Your task to perform on an android device: toggle notification dots Image 0: 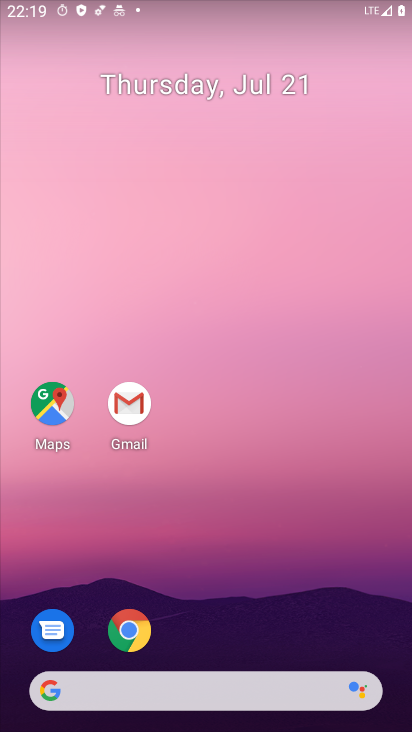
Step 0: drag from (228, 630) to (195, 69)
Your task to perform on an android device: toggle notification dots Image 1: 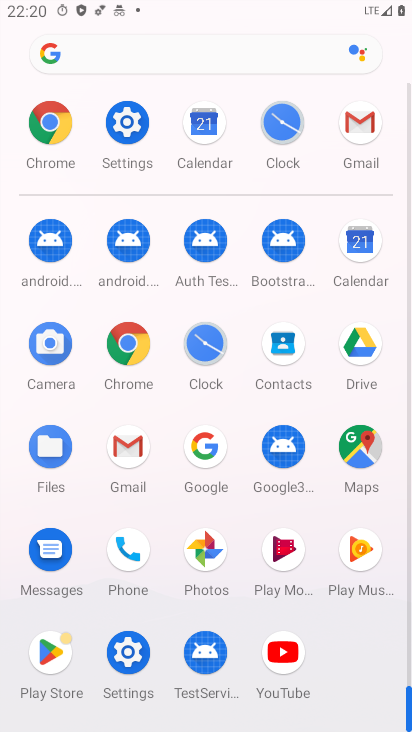
Step 1: click (127, 135)
Your task to perform on an android device: toggle notification dots Image 2: 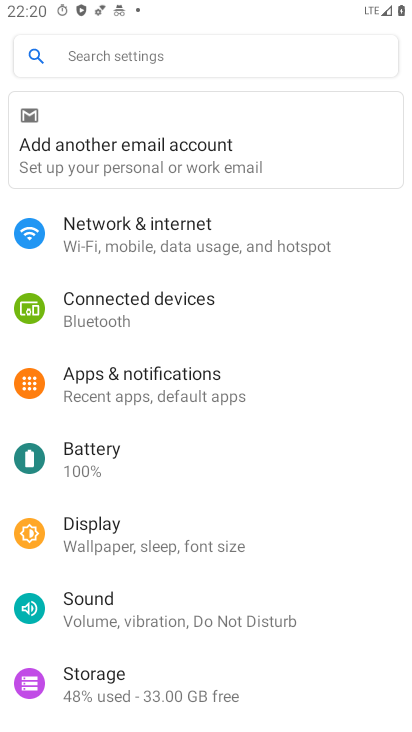
Step 2: drag from (172, 607) to (134, 165)
Your task to perform on an android device: toggle notification dots Image 3: 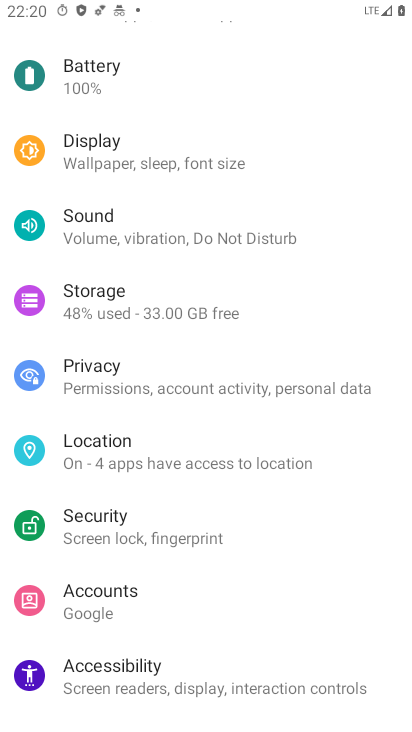
Step 3: drag from (155, 462) to (166, 124)
Your task to perform on an android device: toggle notification dots Image 4: 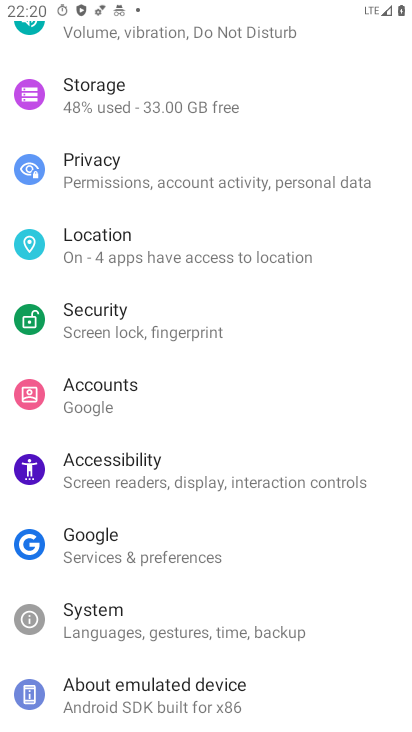
Step 4: drag from (136, 199) to (141, 655)
Your task to perform on an android device: toggle notification dots Image 5: 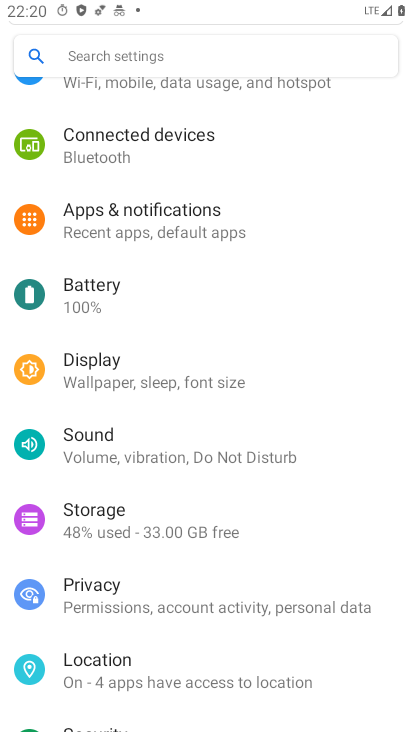
Step 5: drag from (193, 272) to (193, 526)
Your task to perform on an android device: toggle notification dots Image 6: 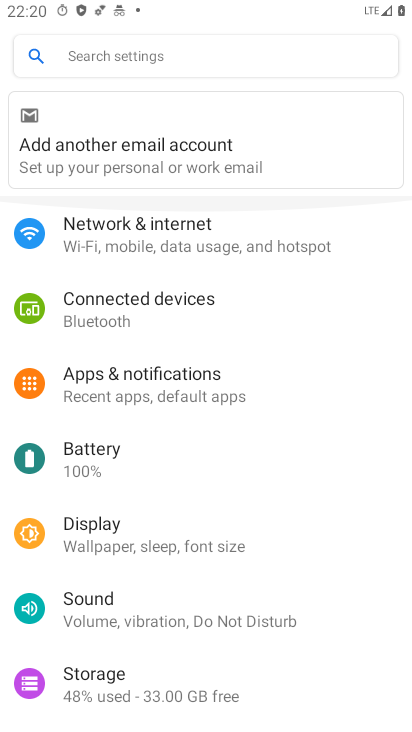
Step 6: drag from (130, 268) to (156, 512)
Your task to perform on an android device: toggle notification dots Image 7: 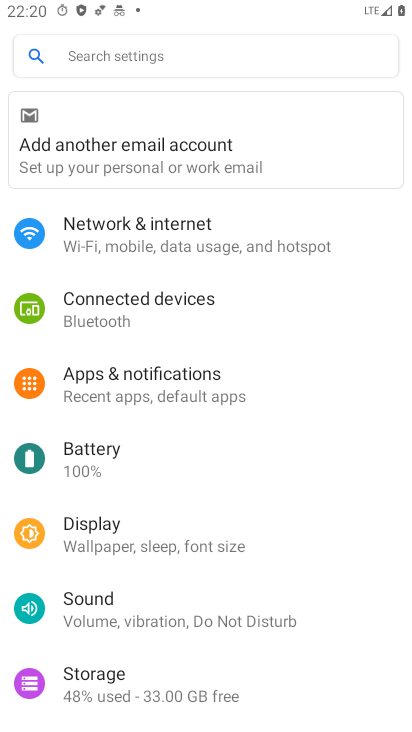
Step 7: click (145, 376)
Your task to perform on an android device: toggle notification dots Image 8: 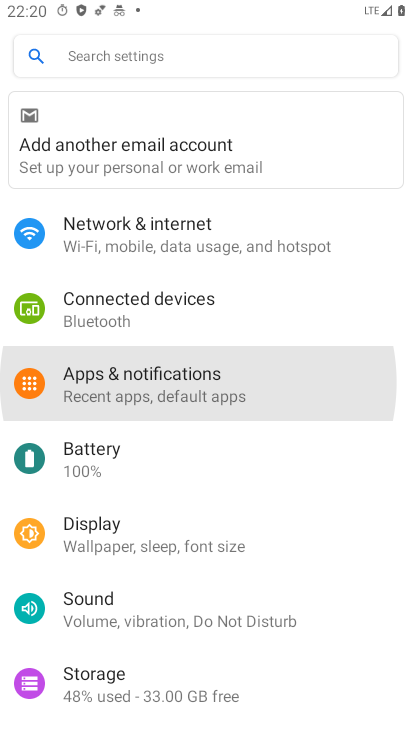
Step 8: click (145, 377)
Your task to perform on an android device: toggle notification dots Image 9: 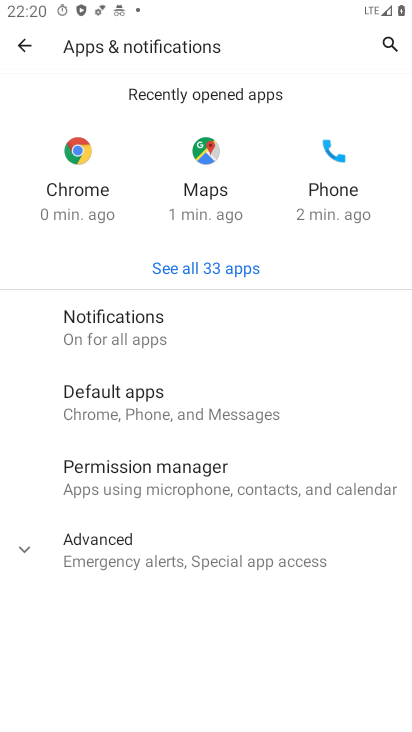
Step 9: click (115, 320)
Your task to perform on an android device: toggle notification dots Image 10: 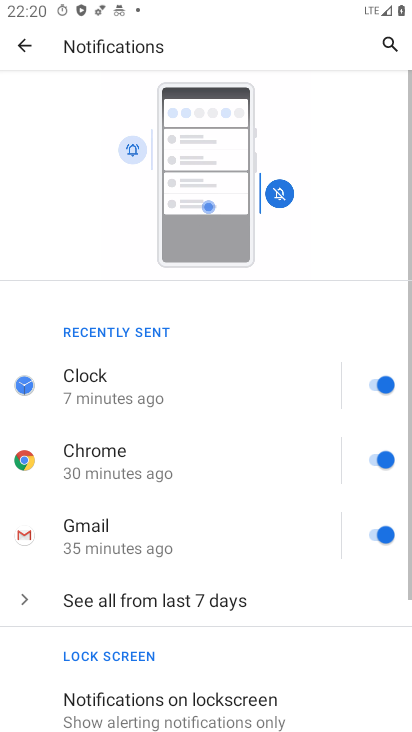
Step 10: drag from (228, 576) to (207, 216)
Your task to perform on an android device: toggle notification dots Image 11: 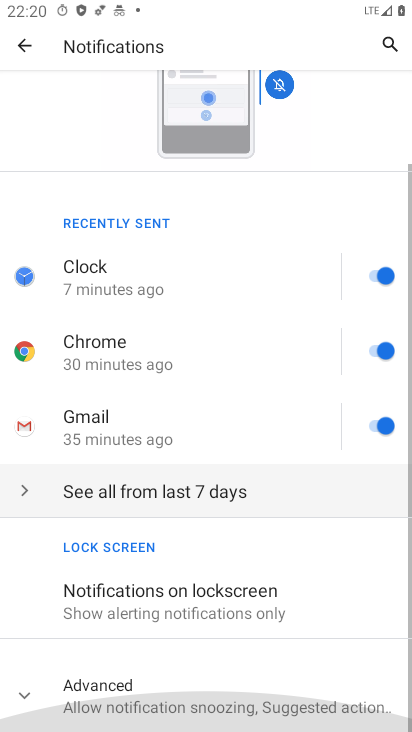
Step 11: drag from (201, 469) to (196, 165)
Your task to perform on an android device: toggle notification dots Image 12: 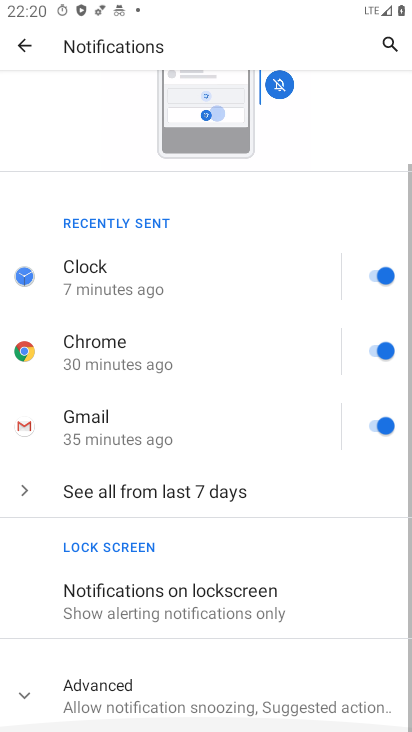
Step 12: drag from (208, 522) to (262, 190)
Your task to perform on an android device: toggle notification dots Image 13: 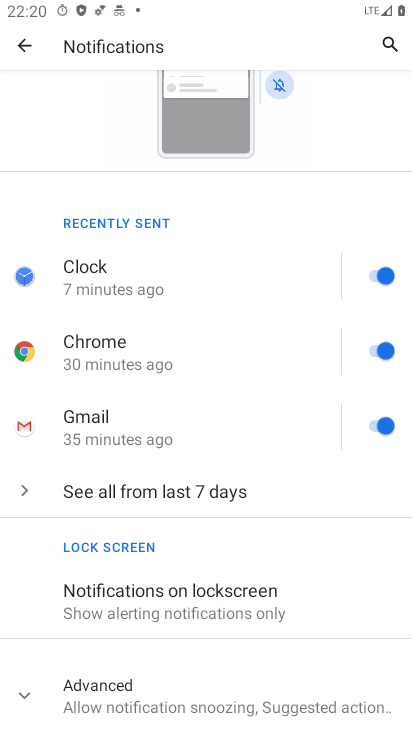
Step 13: click (103, 694)
Your task to perform on an android device: toggle notification dots Image 14: 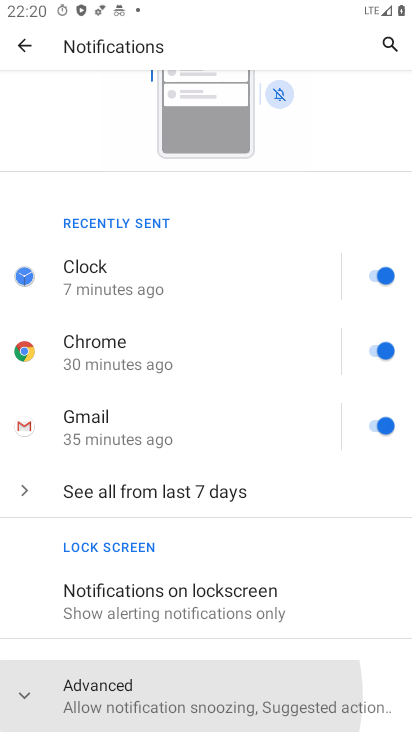
Step 14: click (107, 692)
Your task to perform on an android device: toggle notification dots Image 15: 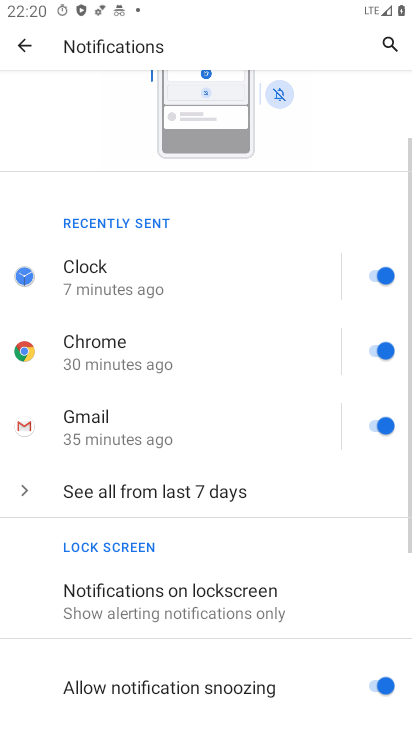
Step 15: drag from (158, 518) to (136, 204)
Your task to perform on an android device: toggle notification dots Image 16: 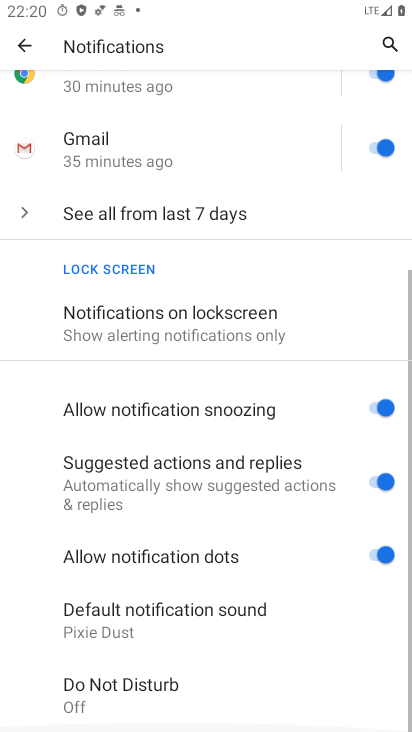
Step 16: drag from (157, 508) to (196, 128)
Your task to perform on an android device: toggle notification dots Image 17: 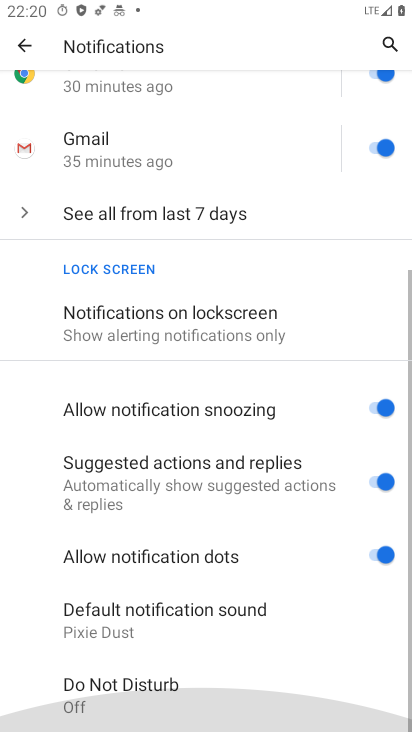
Step 17: drag from (240, 513) to (269, 178)
Your task to perform on an android device: toggle notification dots Image 18: 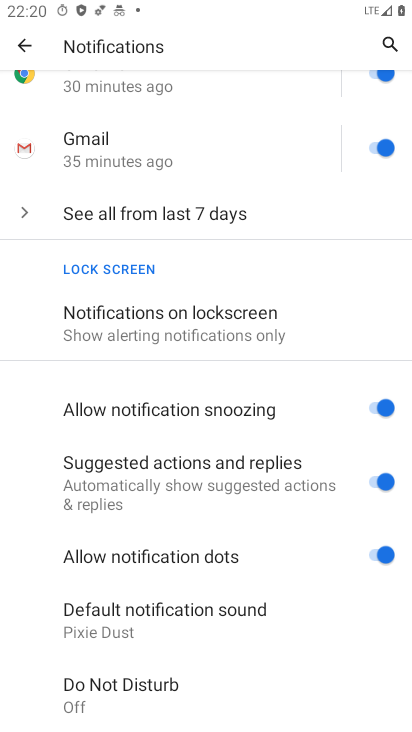
Step 18: click (380, 556)
Your task to perform on an android device: toggle notification dots Image 19: 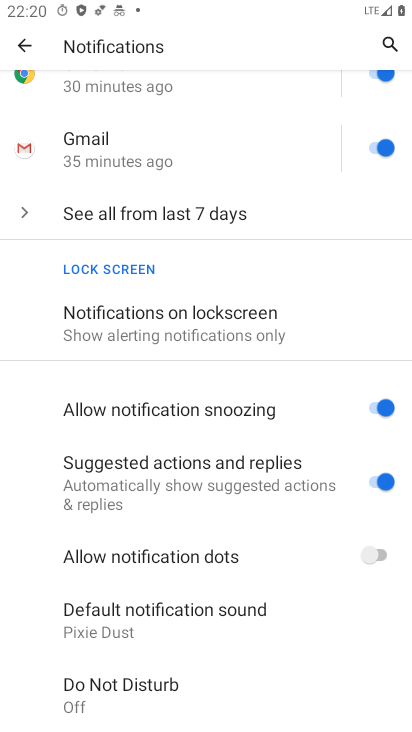
Step 19: task complete